Your task to perform on an android device: move a message to another label in the gmail app Image 0: 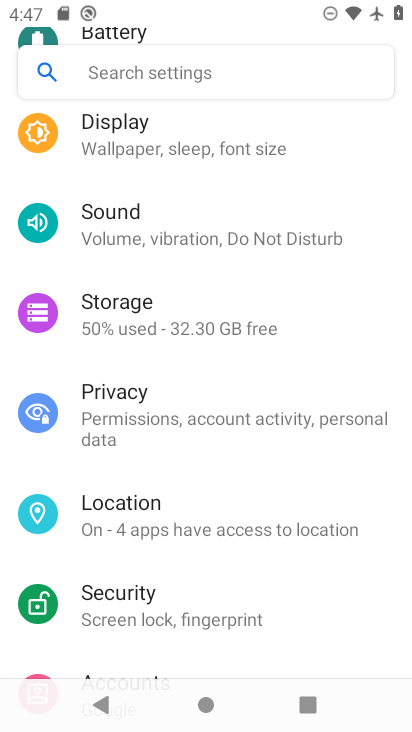
Step 0: press home button
Your task to perform on an android device: move a message to another label in the gmail app Image 1: 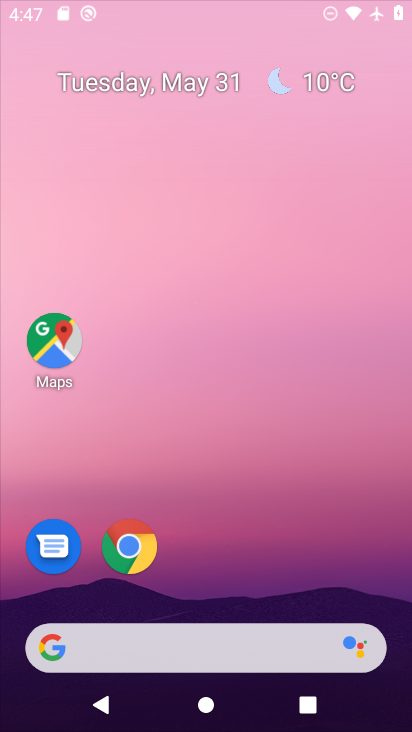
Step 1: drag from (306, 566) to (243, 25)
Your task to perform on an android device: move a message to another label in the gmail app Image 2: 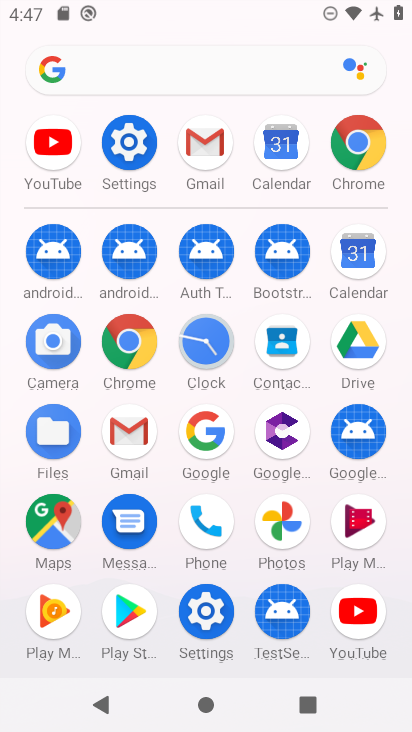
Step 2: click (206, 147)
Your task to perform on an android device: move a message to another label in the gmail app Image 3: 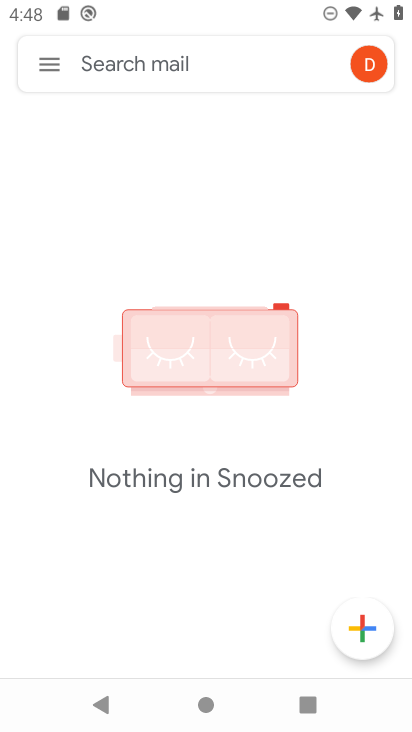
Step 3: click (56, 70)
Your task to perform on an android device: move a message to another label in the gmail app Image 4: 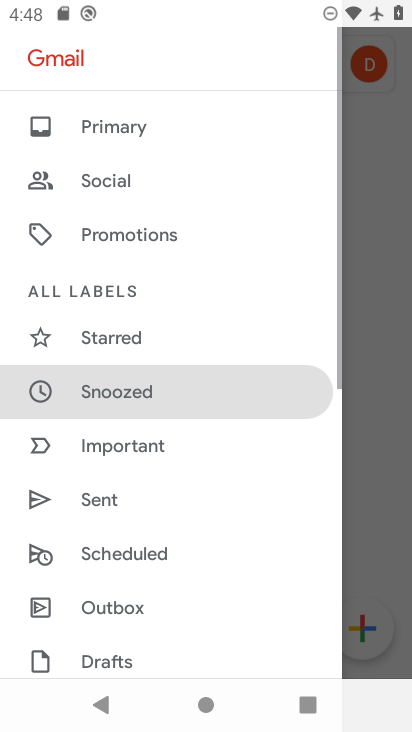
Step 4: drag from (203, 203) to (226, 620)
Your task to perform on an android device: move a message to another label in the gmail app Image 5: 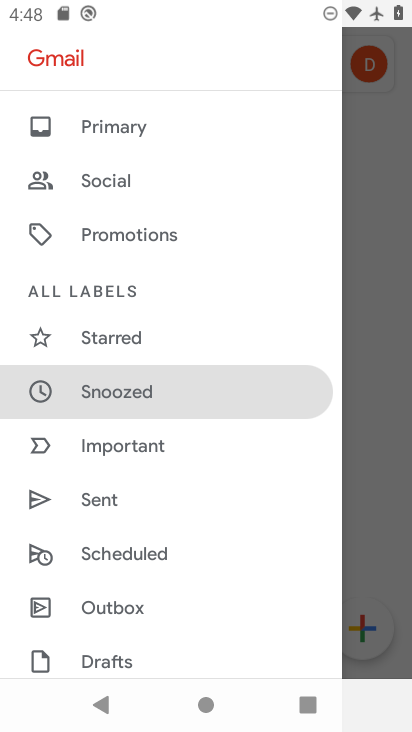
Step 5: drag from (157, 166) to (145, 488)
Your task to perform on an android device: move a message to another label in the gmail app Image 6: 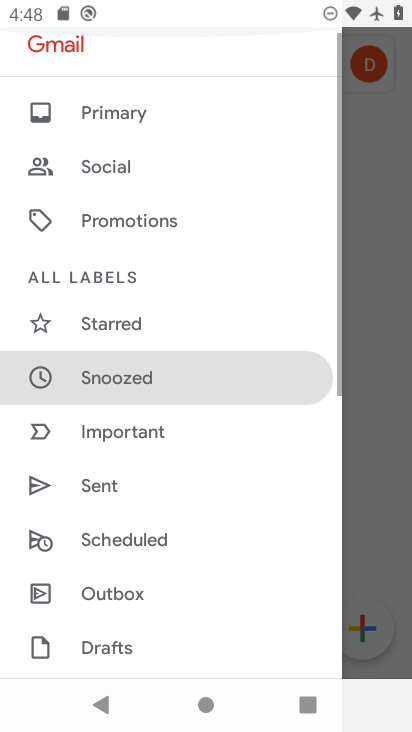
Step 6: click (126, 135)
Your task to perform on an android device: move a message to another label in the gmail app Image 7: 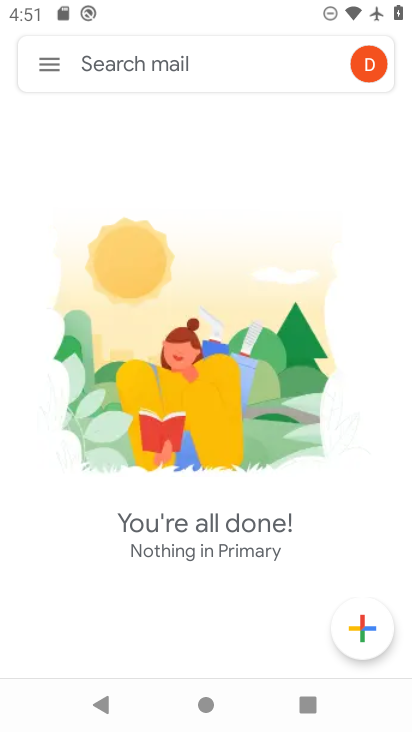
Step 7: task complete